Your task to perform on an android device: Open calendar and show me the fourth week of next month Image 0: 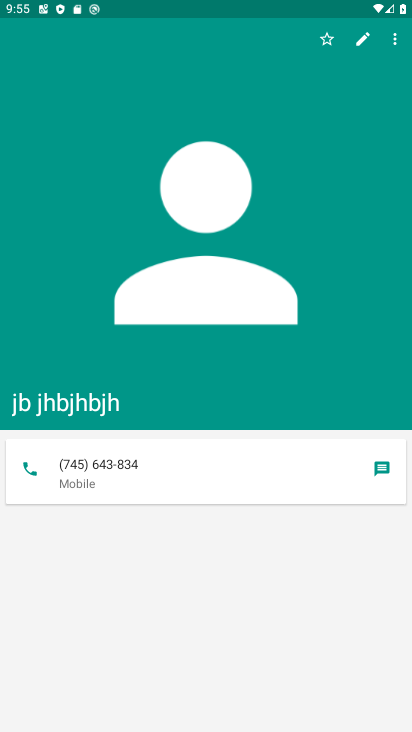
Step 0: press back button
Your task to perform on an android device: Open calendar and show me the fourth week of next month Image 1: 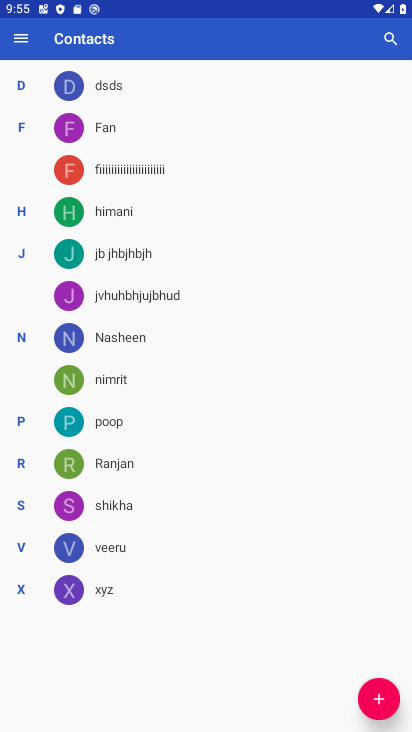
Step 1: press back button
Your task to perform on an android device: Open calendar and show me the fourth week of next month Image 2: 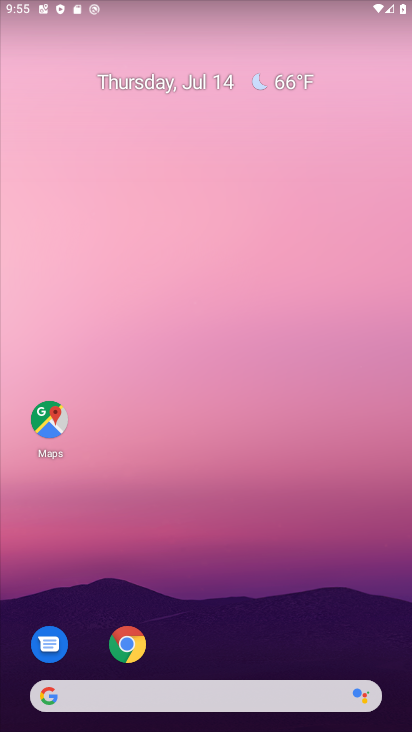
Step 2: drag from (296, 679) to (216, 286)
Your task to perform on an android device: Open calendar and show me the fourth week of next month Image 3: 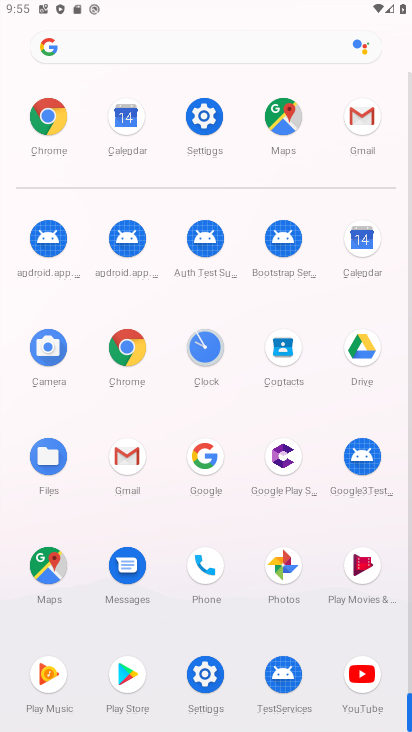
Step 3: click (359, 216)
Your task to perform on an android device: Open calendar and show me the fourth week of next month Image 4: 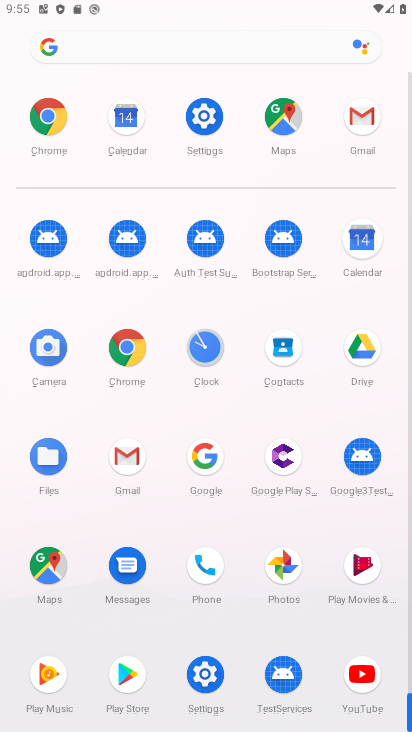
Step 4: click (365, 239)
Your task to perform on an android device: Open calendar and show me the fourth week of next month Image 5: 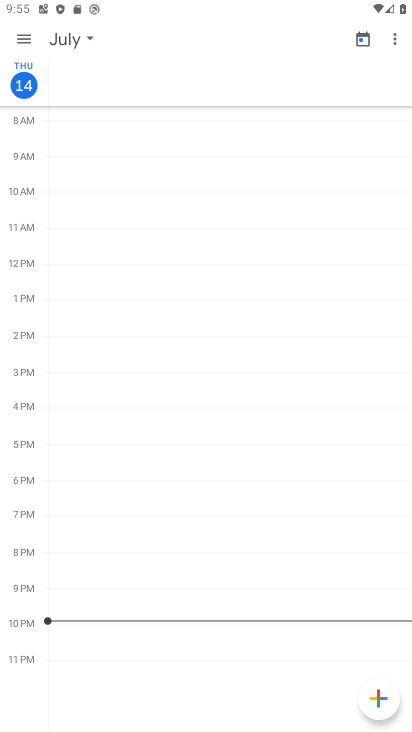
Step 5: press back button
Your task to perform on an android device: Open calendar and show me the fourth week of next month Image 6: 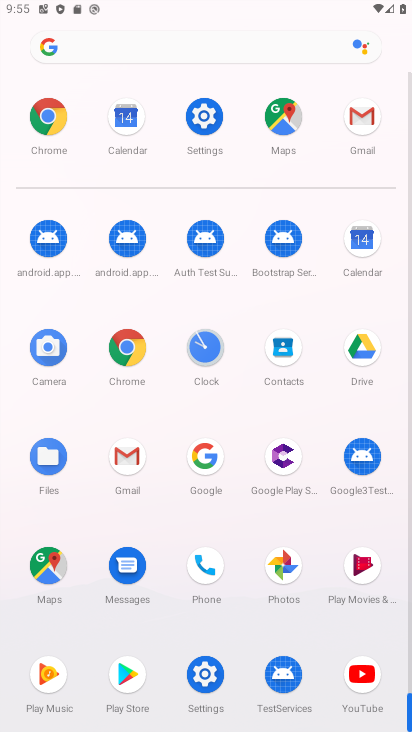
Step 6: click (363, 244)
Your task to perform on an android device: Open calendar and show me the fourth week of next month Image 7: 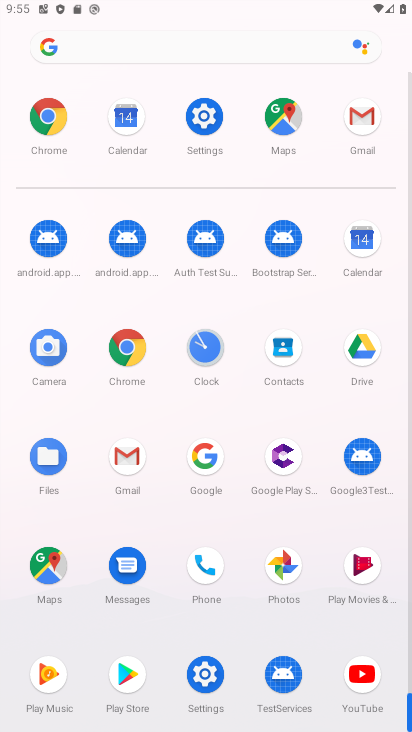
Step 7: click (363, 244)
Your task to perform on an android device: Open calendar and show me the fourth week of next month Image 8: 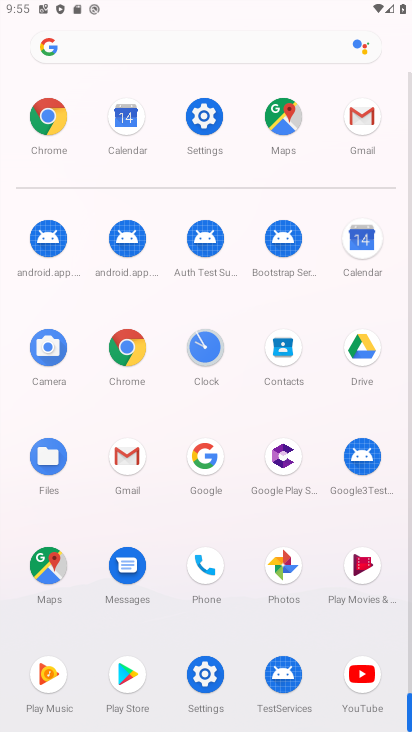
Step 8: click (363, 244)
Your task to perform on an android device: Open calendar and show me the fourth week of next month Image 9: 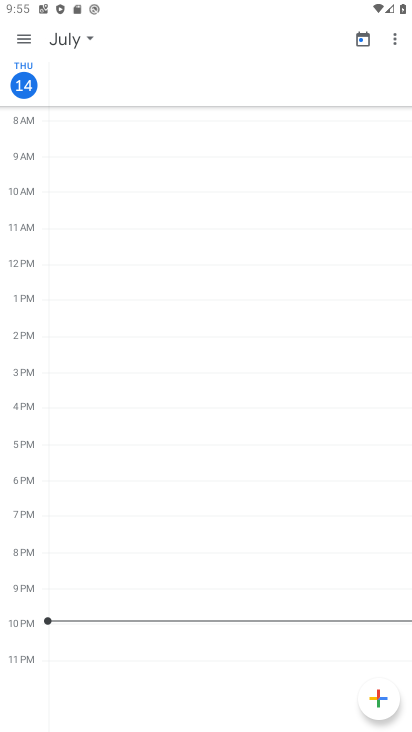
Step 9: click (363, 246)
Your task to perform on an android device: Open calendar and show me the fourth week of next month Image 10: 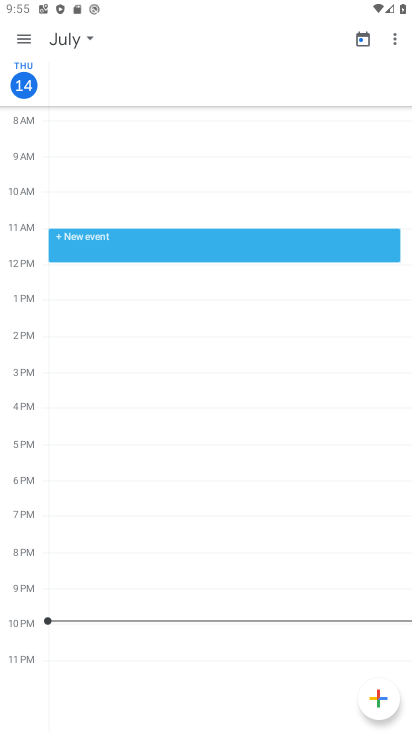
Step 10: press back button
Your task to perform on an android device: Open calendar and show me the fourth week of next month Image 11: 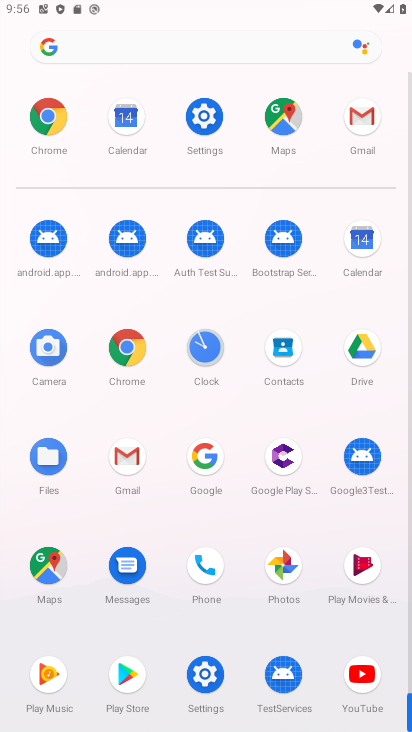
Step 11: click (365, 233)
Your task to perform on an android device: Open calendar and show me the fourth week of next month Image 12: 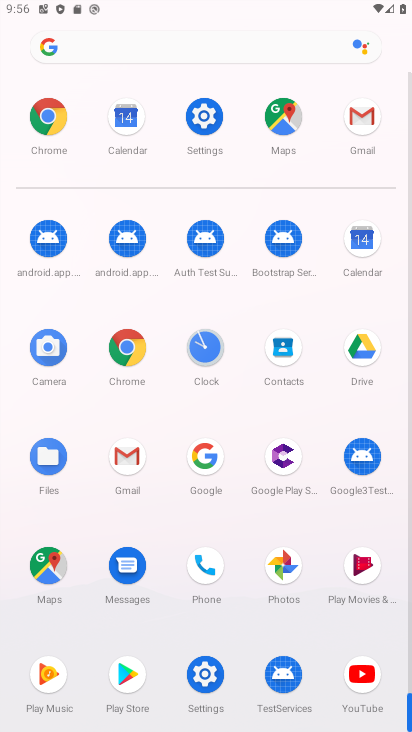
Step 12: click (365, 233)
Your task to perform on an android device: Open calendar and show me the fourth week of next month Image 13: 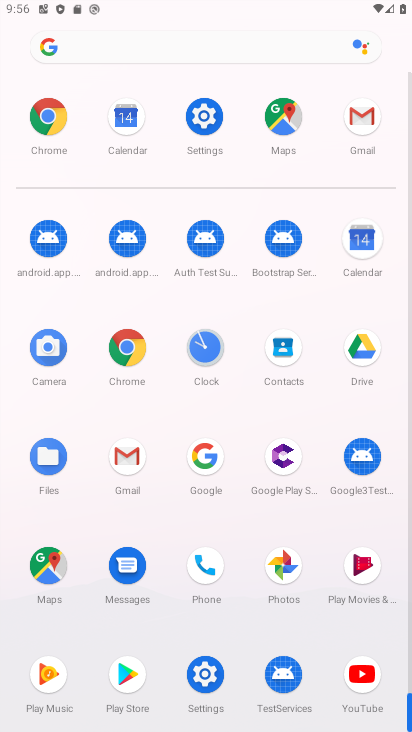
Step 13: click (365, 233)
Your task to perform on an android device: Open calendar and show me the fourth week of next month Image 14: 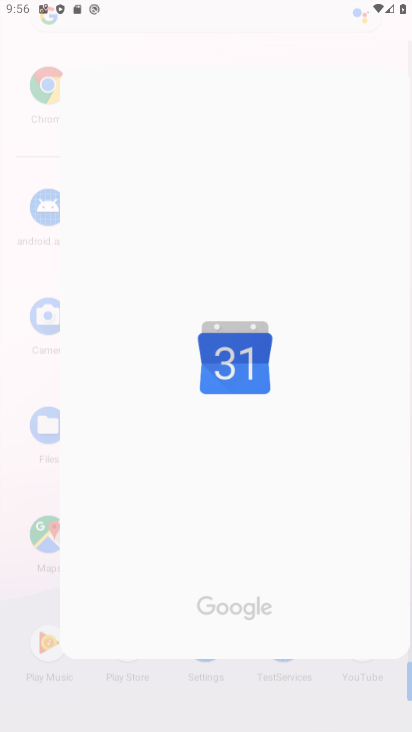
Step 14: click (365, 232)
Your task to perform on an android device: Open calendar and show me the fourth week of next month Image 15: 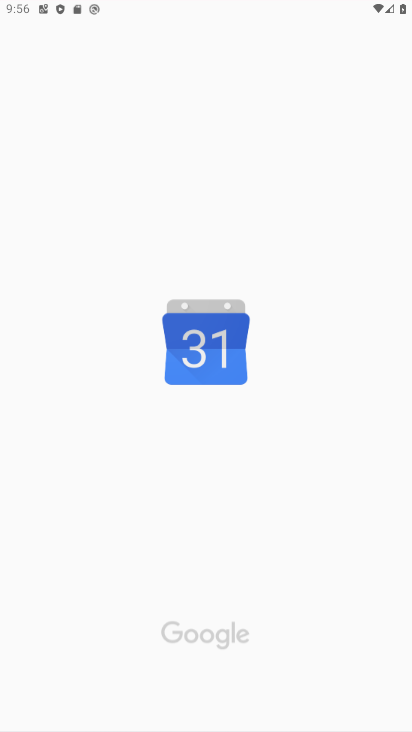
Step 15: click (365, 232)
Your task to perform on an android device: Open calendar and show me the fourth week of next month Image 16: 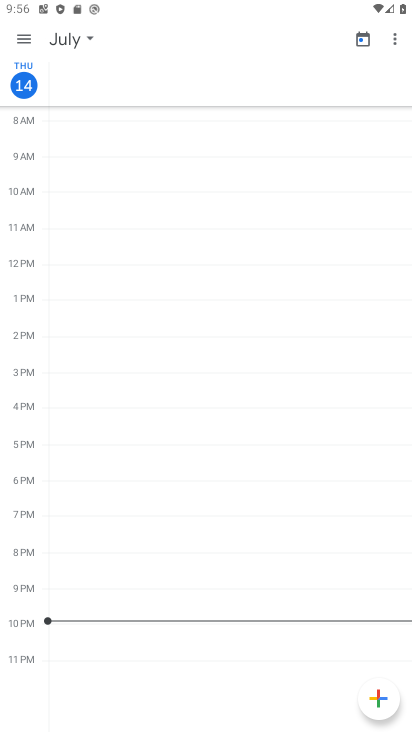
Step 16: click (22, 44)
Your task to perform on an android device: Open calendar and show me the fourth week of next month Image 17: 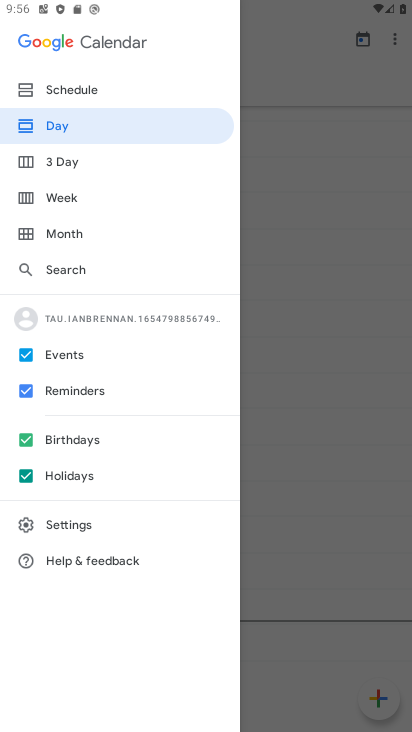
Step 17: click (303, 269)
Your task to perform on an android device: Open calendar and show me the fourth week of next month Image 18: 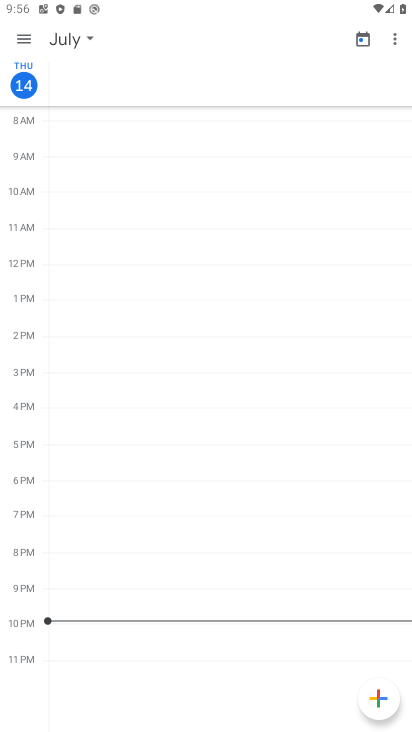
Step 18: press back button
Your task to perform on an android device: Open calendar and show me the fourth week of next month Image 19: 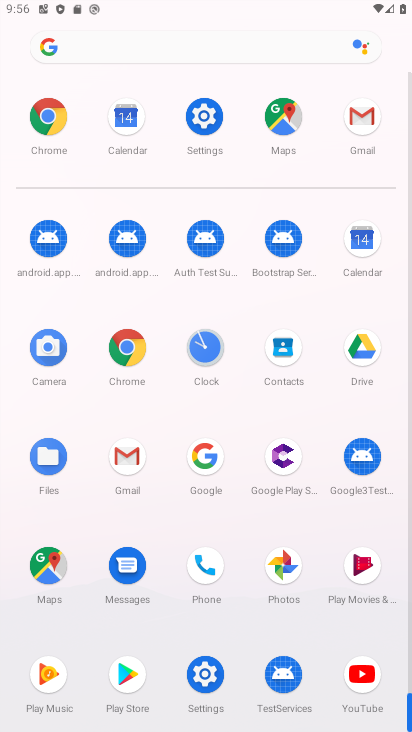
Step 19: click (367, 241)
Your task to perform on an android device: Open calendar and show me the fourth week of next month Image 20: 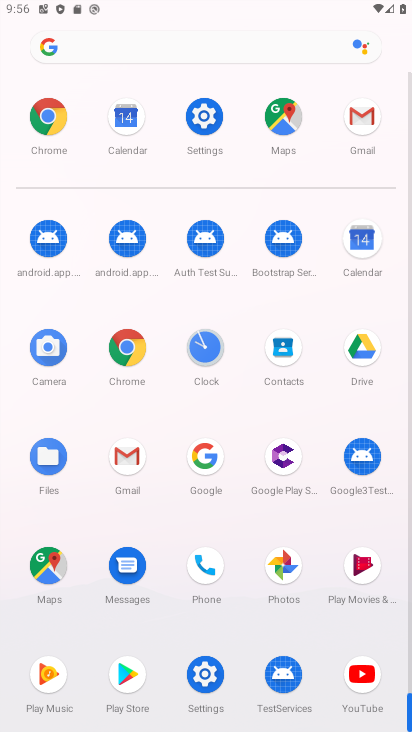
Step 20: click (366, 240)
Your task to perform on an android device: Open calendar and show me the fourth week of next month Image 21: 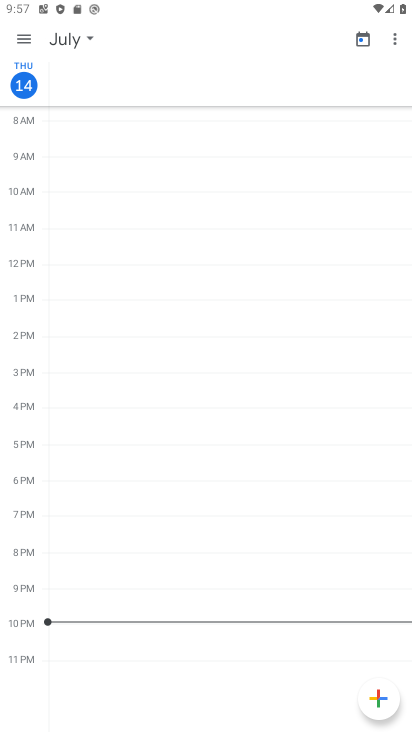
Step 21: click (88, 33)
Your task to perform on an android device: Open calendar and show me the fourth week of next month Image 22: 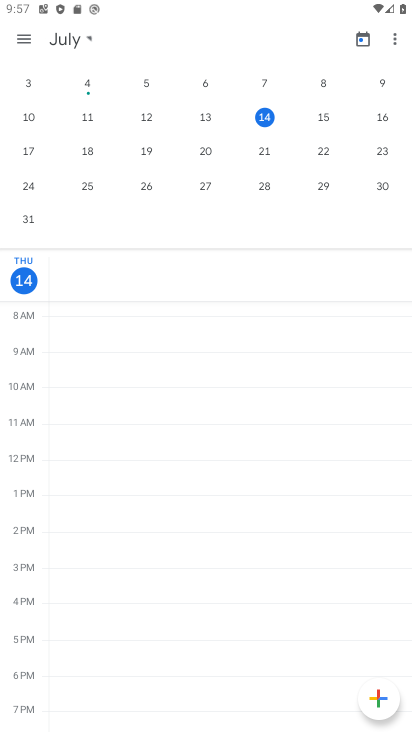
Step 22: click (88, 36)
Your task to perform on an android device: Open calendar and show me the fourth week of next month Image 23: 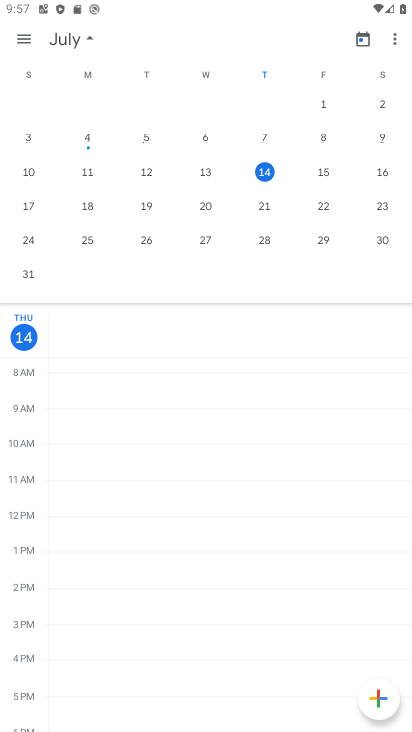
Step 23: click (94, 42)
Your task to perform on an android device: Open calendar and show me the fourth week of next month Image 24: 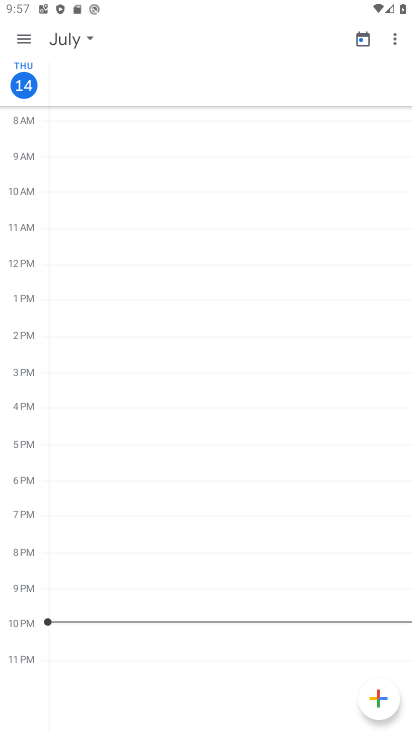
Step 24: click (97, 40)
Your task to perform on an android device: Open calendar and show me the fourth week of next month Image 25: 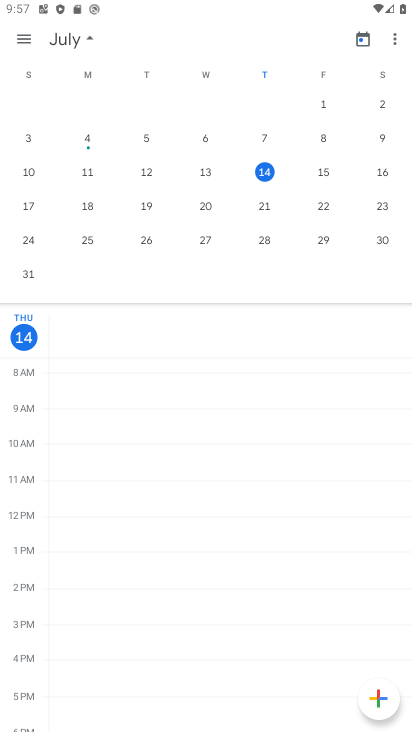
Step 25: drag from (310, 184) to (40, 180)
Your task to perform on an android device: Open calendar and show me the fourth week of next month Image 26: 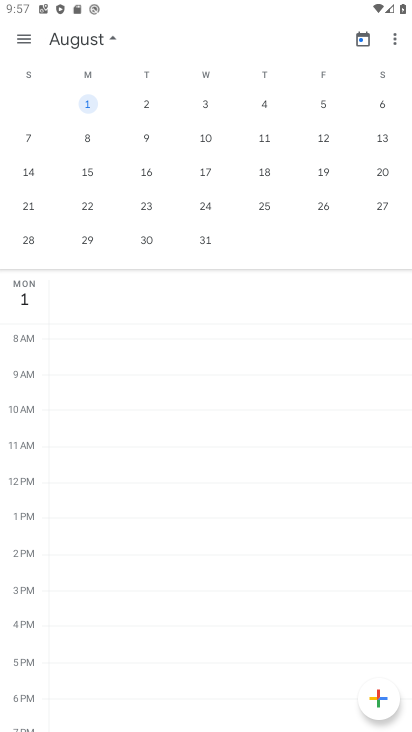
Step 26: click (204, 199)
Your task to perform on an android device: Open calendar and show me the fourth week of next month Image 27: 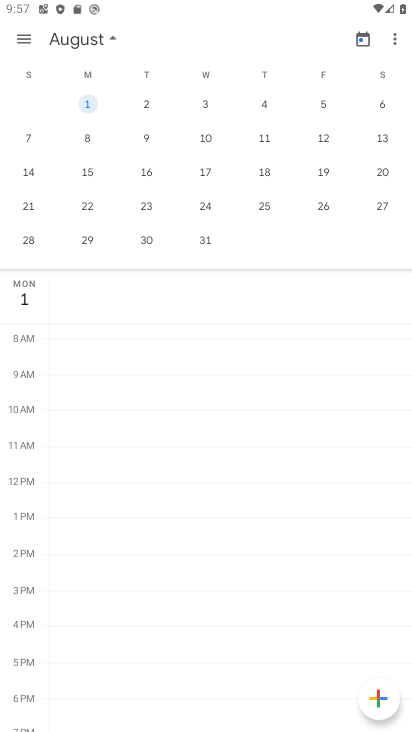
Step 27: click (204, 199)
Your task to perform on an android device: Open calendar and show me the fourth week of next month Image 28: 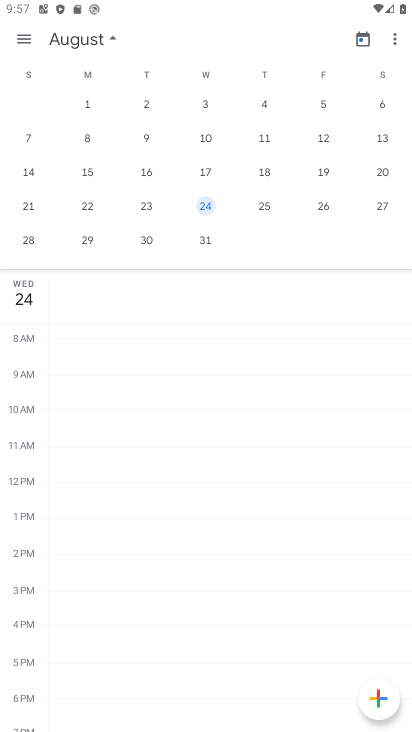
Step 28: click (209, 202)
Your task to perform on an android device: Open calendar and show me the fourth week of next month Image 29: 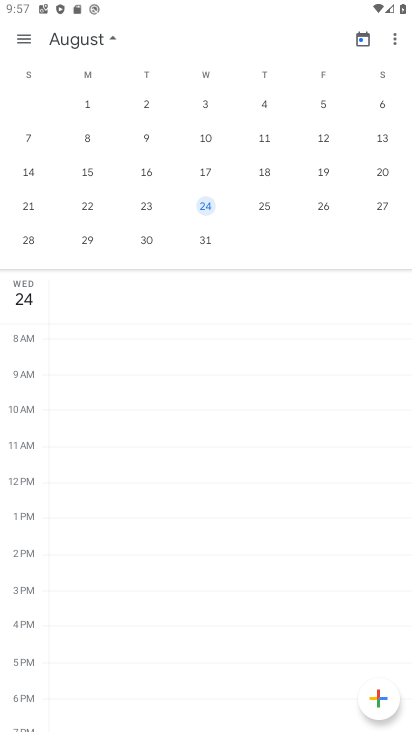
Step 29: task complete